Your task to perform on an android device: change the upload size in google photos Image 0: 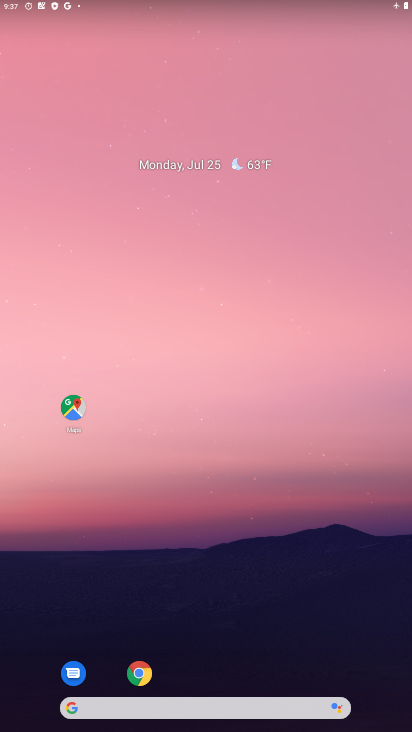
Step 0: drag from (203, 670) to (243, 53)
Your task to perform on an android device: change the upload size in google photos Image 1: 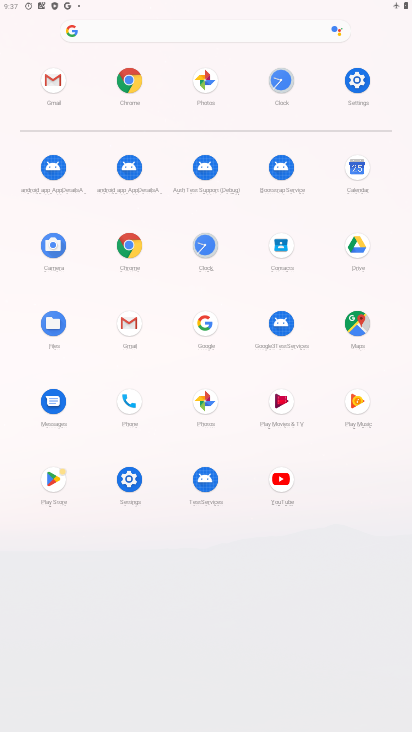
Step 1: click (197, 402)
Your task to perform on an android device: change the upload size in google photos Image 2: 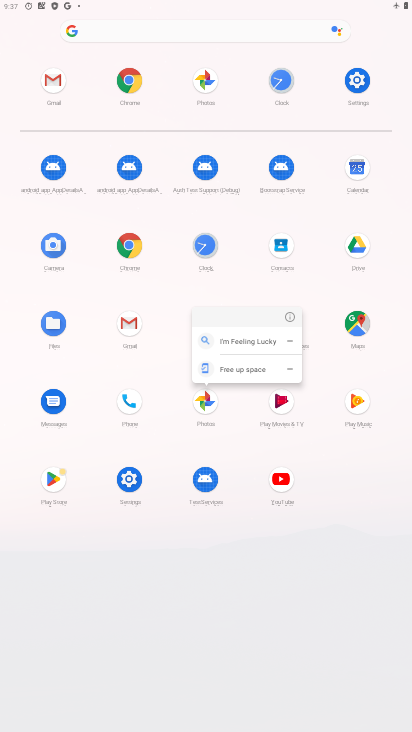
Step 2: click (292, 316)
Your task to perform on an android device: change the upload size in google photos Image 3: 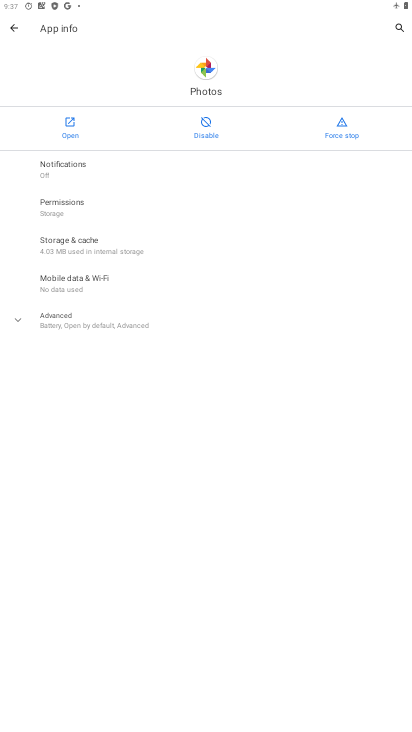
Step 3: click (74, 119)
Your task to perform on an android device: change the upload size in google photos Image 4: 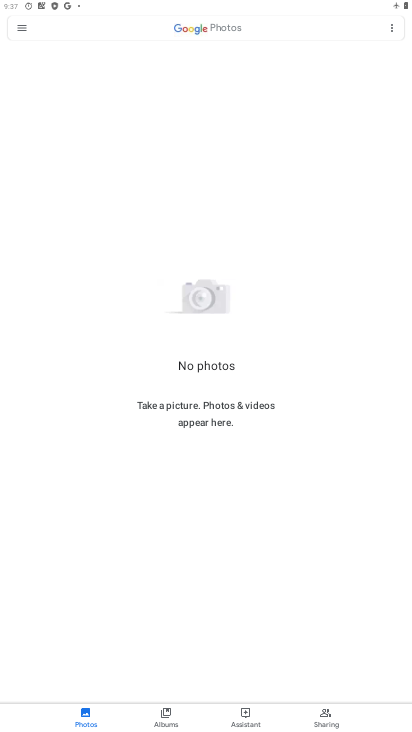
Step 4: click (266, 415)
Your task to perform on an android device: change the upload size in google photos Image 5: 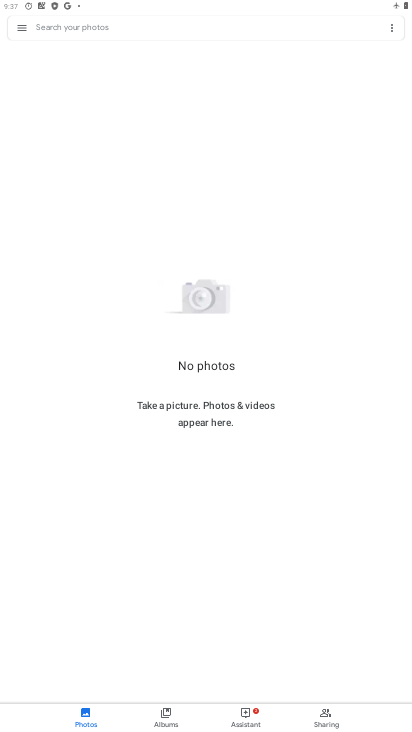
Step 5: click (320, 723)
Your task to perform on an android device: change the upload size in google photos Image 6: 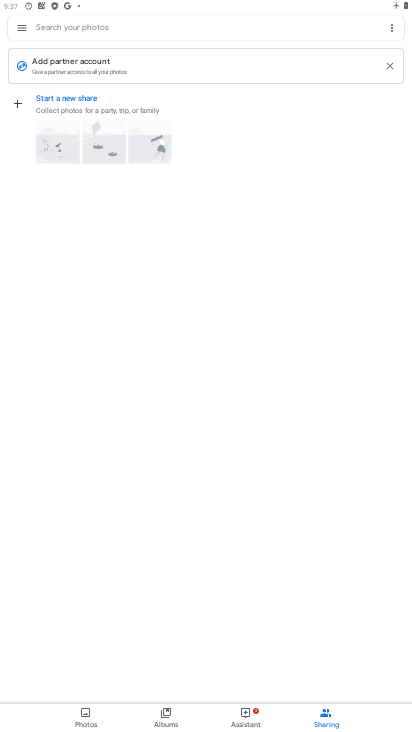
Step 6: click (84, 721)
Your task to perform on an android device: change the upload size in google photos Image 7: 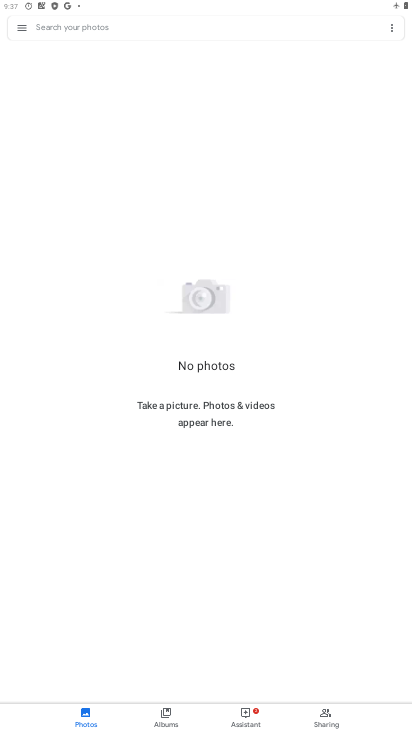
Step 7: click (20, 26)
Your task to perform on an android device: change the upload size in google photos Image 8: 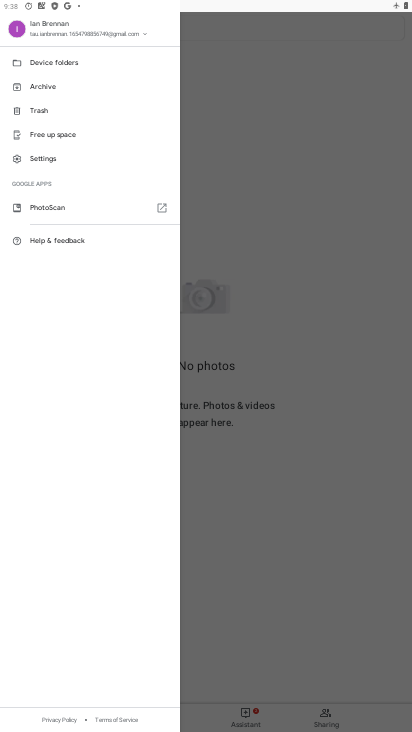
Step 8: click (38, 159)
Your task to perform on an android device: change the upload size in google photos Image 9: 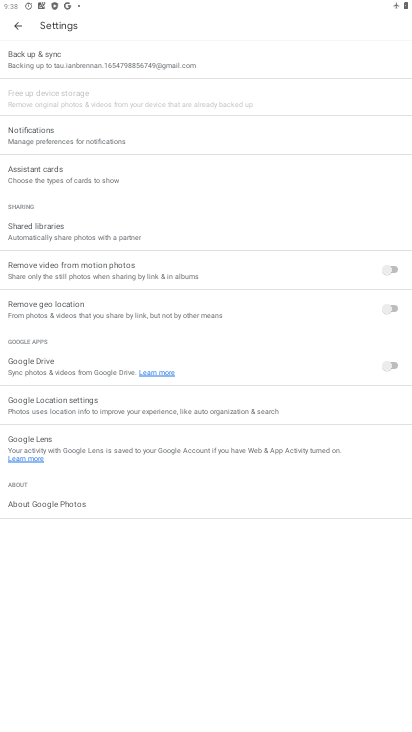
Step 9: click (137, 52)
Your task to perform on an android device: change the upload size in google photos Image 10: 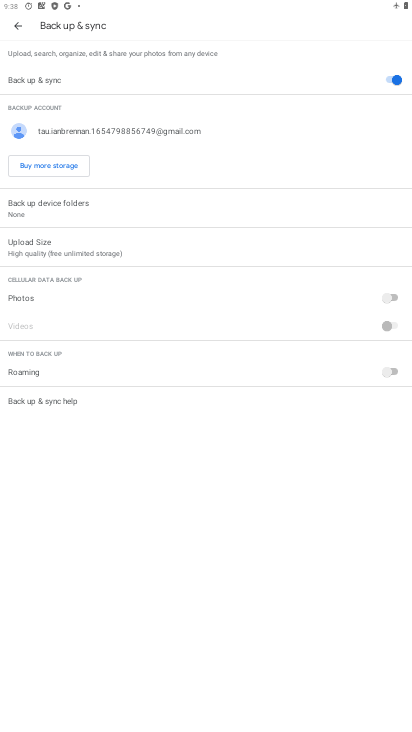
Step 10: click (95, 239)
Your task to perform on an android device: change the upload size in google photos Image 11: 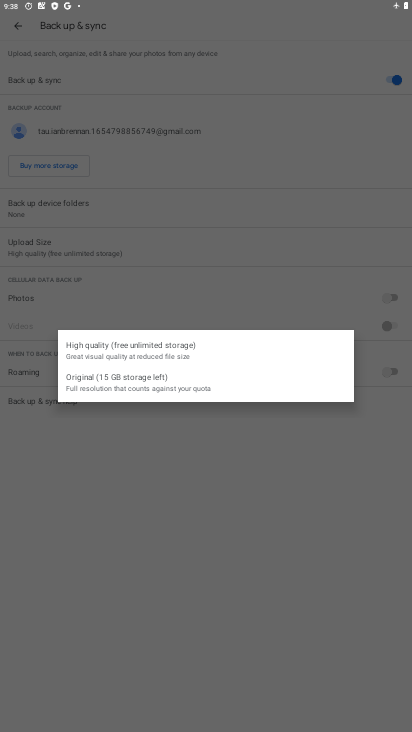
Step 11: click (159, 343)
Your task to perform on an android device: change the upload size in google photos Image 12: 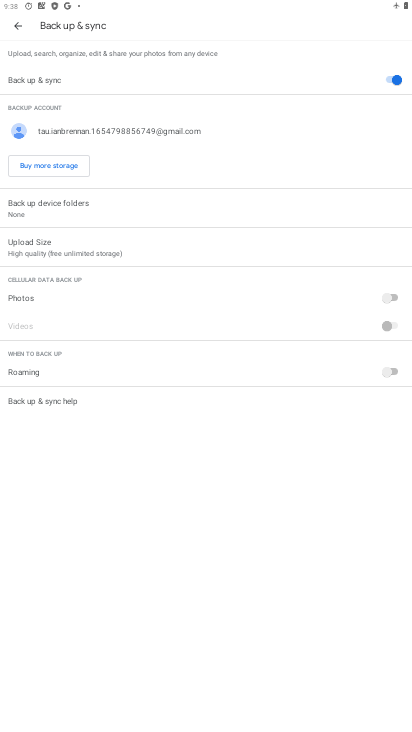
Step 12: drag from (274, 715) to (292, 224)
Your task to perform on an android device: change the upload size in google photos Image 13: 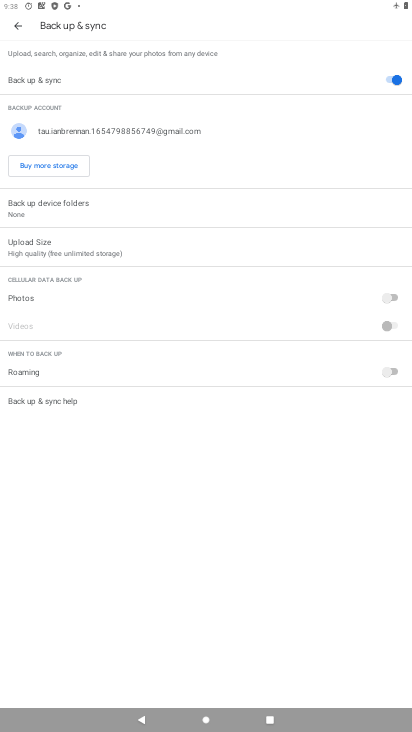
Step 13: drag from (217, 461) to (217, 280)
Your task to perform on an android device: change the upload size in google photos Image 14: 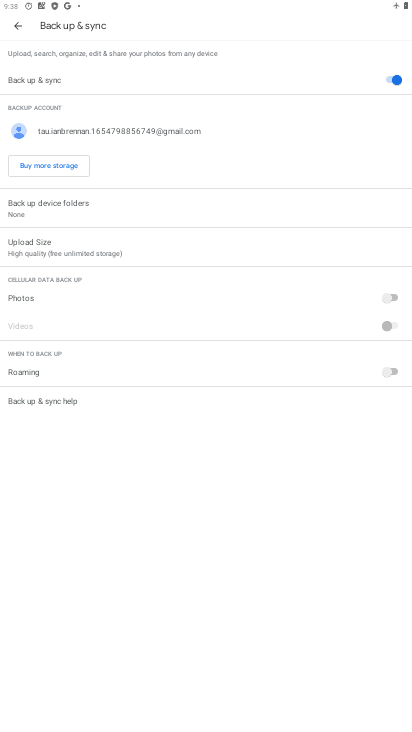
Step 14: click (200, 232)
Your task to perform on an android device: change the upload size in google photos Image 15: 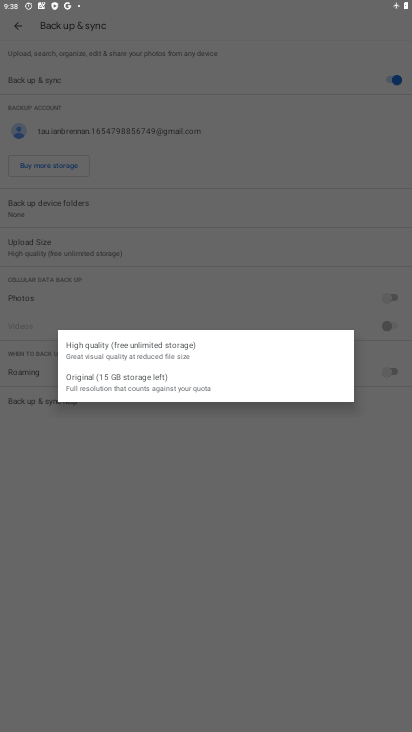
Step 15: click (142, 355)
Your task to perform on an android device: change the upload size in google photos Image 16: 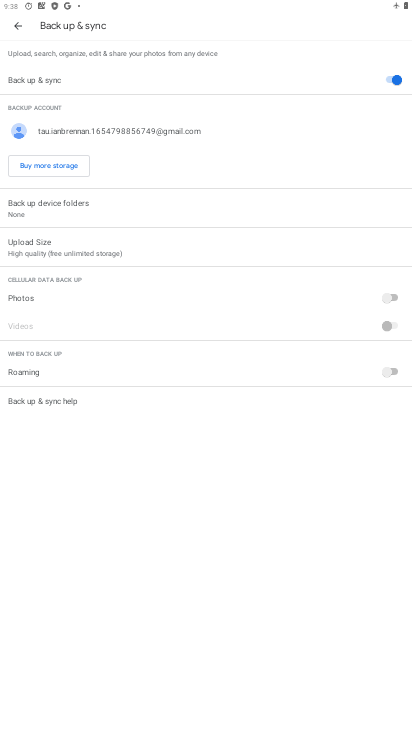
Step 16: task complete